Your task to perform on an android device: What's on my calendar today? Image 0: 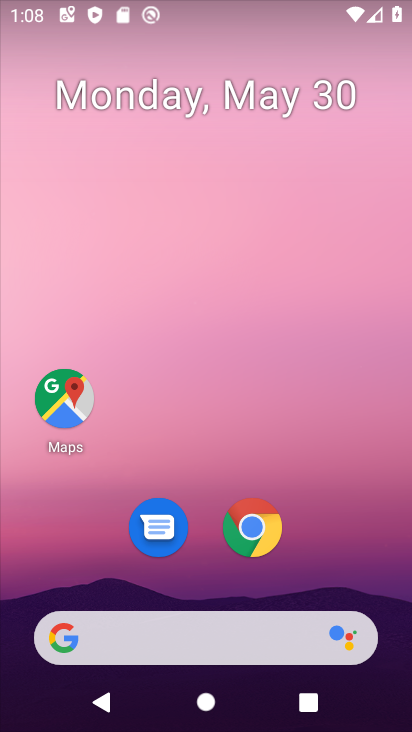
Step 0: drag from (204, 611) to (206, 1)
Your task to perform on an android device: What's on my calendar today? Image 1: 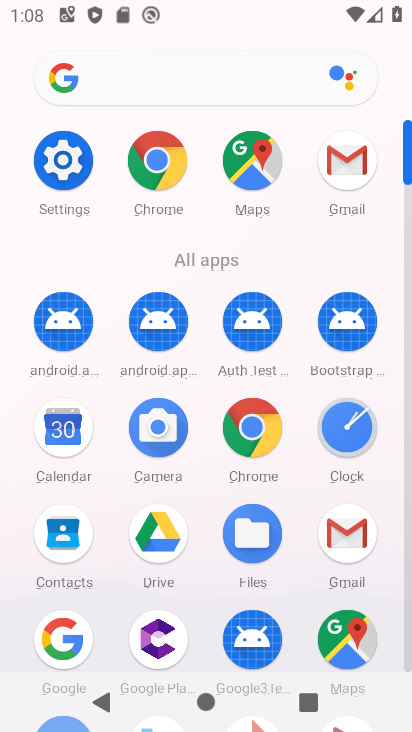
Step 1: click (64, 436)
Your task to perform on an android device: What's on my calendar today? Image 2: 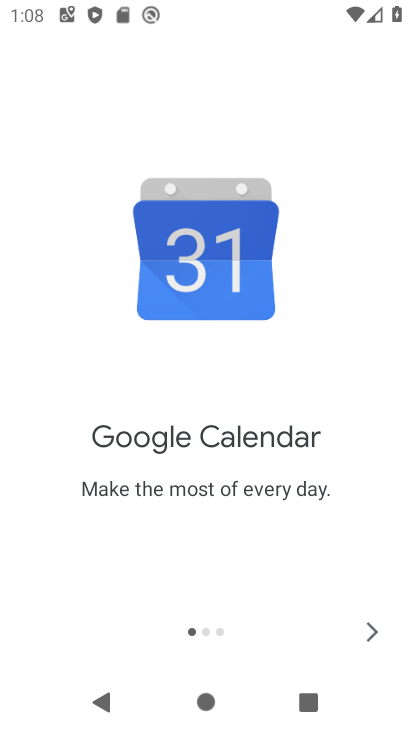
Step 2: click (363, 627)
Your task to perform on an android device: What's on my calendar today? Image 3: 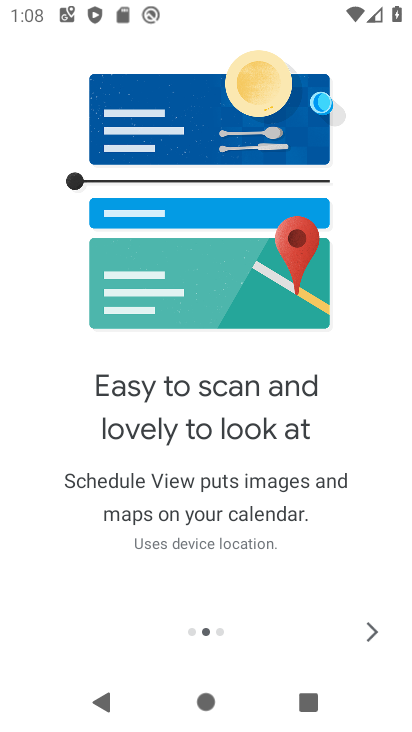
Step 3: click (365, 626)
Your task to perform on an android device: What's on my calendar today? Image 4: 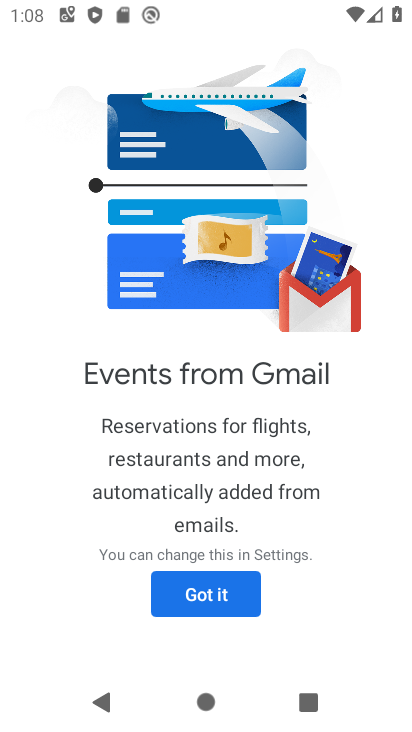
Step 4: click (203, 612)
Your task to perform on an android device: What's on my calendar today? Image 5: 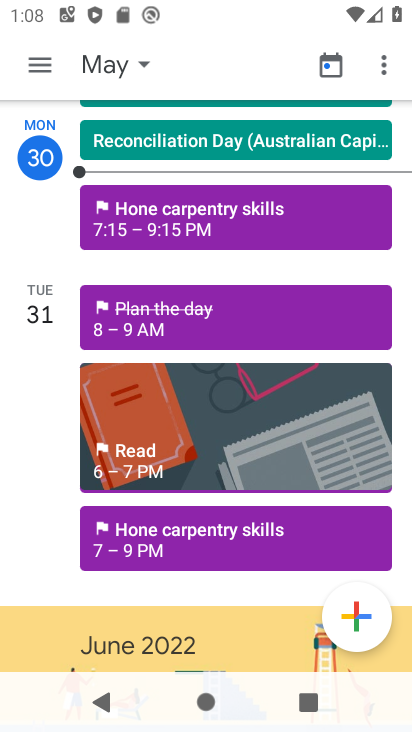
Step 5: click (44, 55)
Your task to perform on an android device: What's on my calendar today? Image 6: 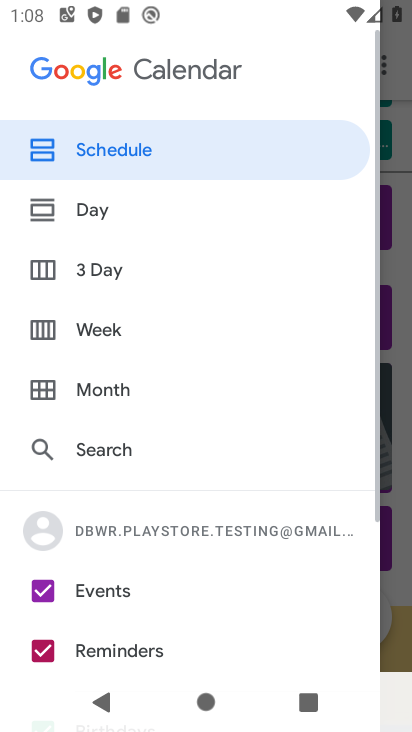
Step 6: click (99, 201)
Your task to perform on an android device: What's on my calendar today? Image 7: 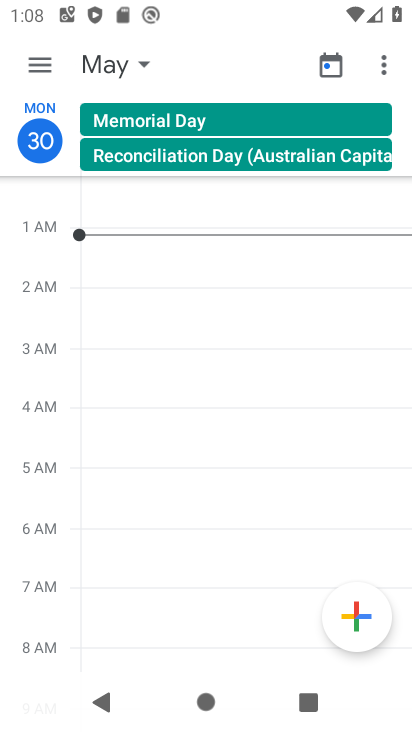
Step 7: task complete